Your task to perform on an android device: open device folders in google photos Image 0: 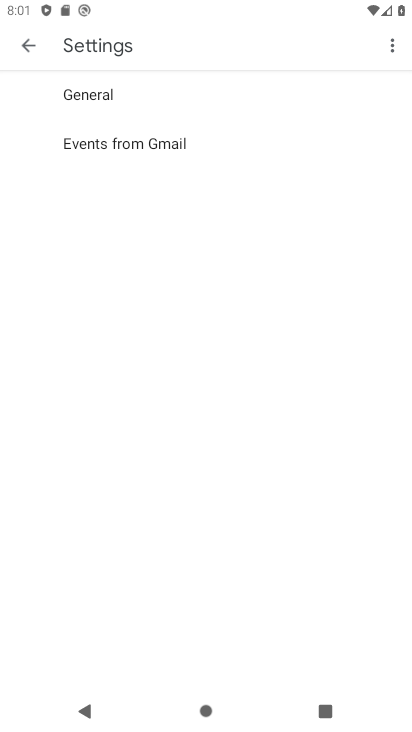
Step 0: press home button
Your task to perform on an android device: open device folders in google photos Image 1: 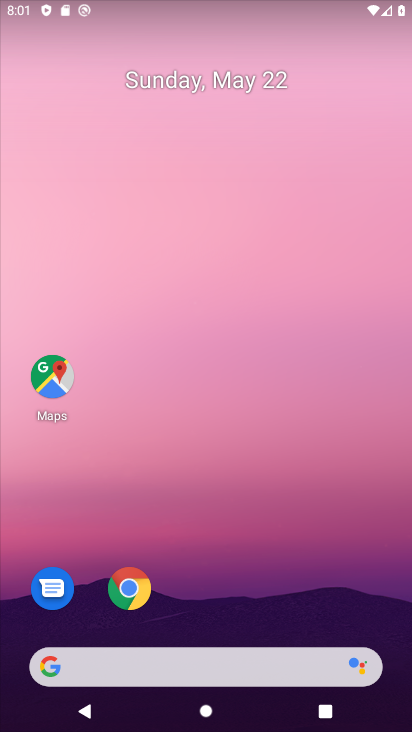
Step 1: drag from (240, 599) to (219, 137)
Your task to perform on an android device: open device folders in google photos Image 2: 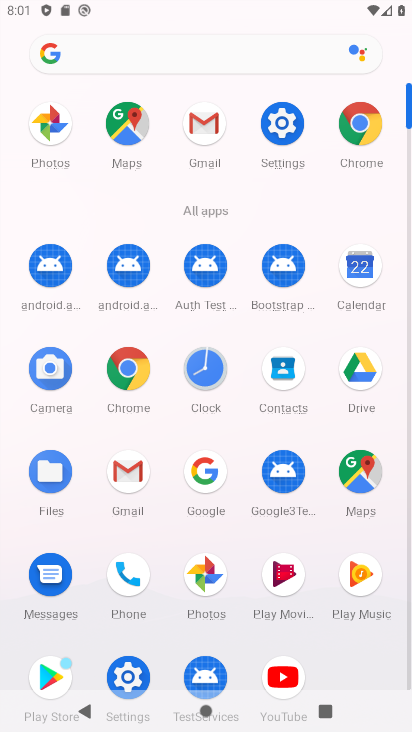
Step 2: click (54, 116)
Your task to perform on an android device: open device folders in google photos Image 3: 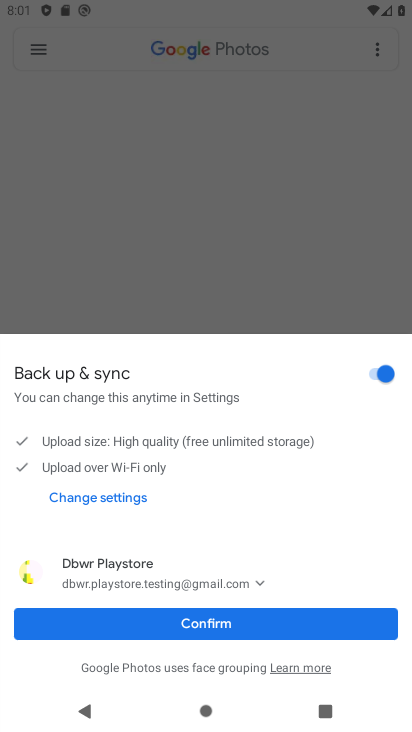
Step 3: click (205, 622)
Your task to perform on an android device: open device folders in google photos Image 4: 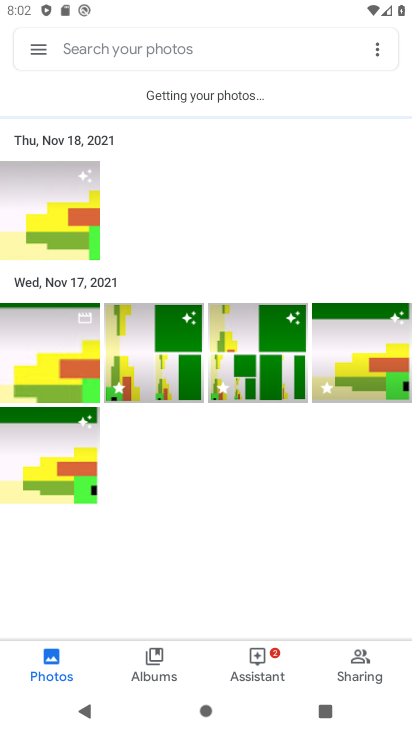
Step 4: click (42, 51)
Your task to perform on an android device: open device folders in google photos Image 5: 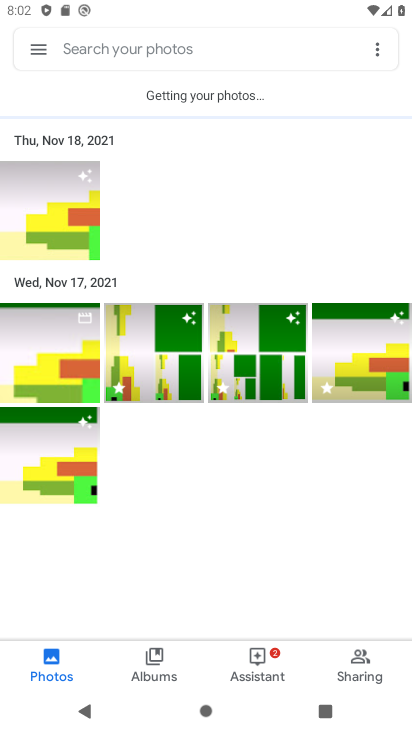
Step 5: click (42, 51)
Your task to perform on an android device: open device folders in google photos Image 6: 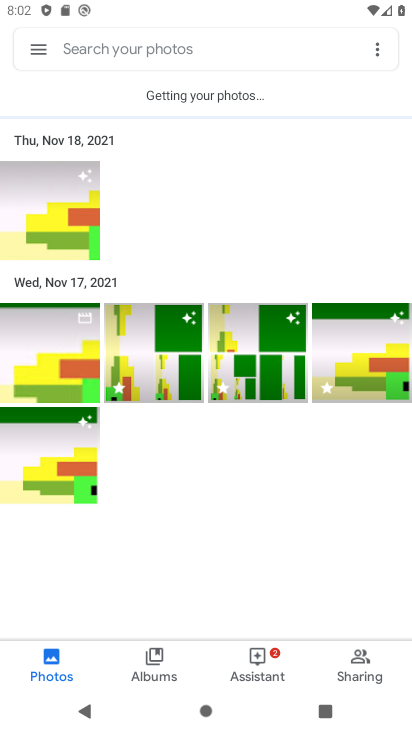
Step 6: click (42, 51)
Your task to perform on an android device: open device folders in google photos Image 7: 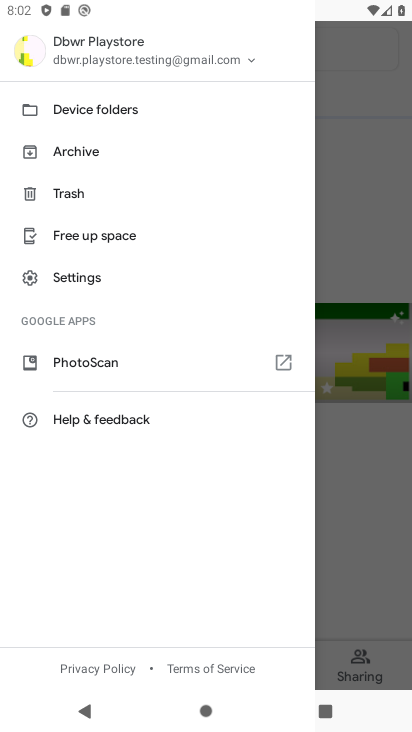
Step 7: click (79, 112)
Your task to perform on an android device: open device folders in google photos Image 8: 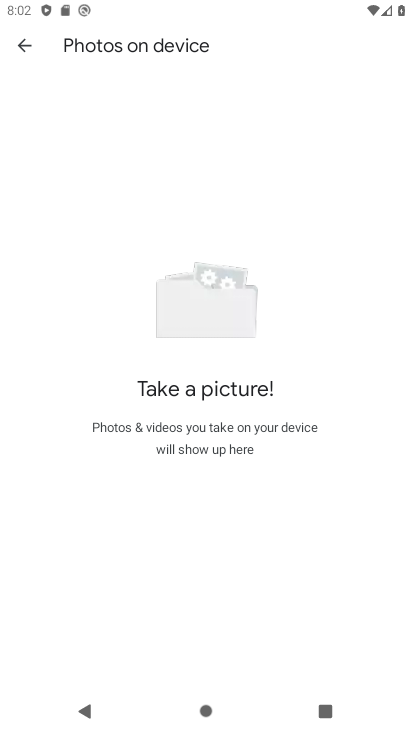
Step 8: task complete